Your task to perform on an android device: Turn off the flashlight Image 0: 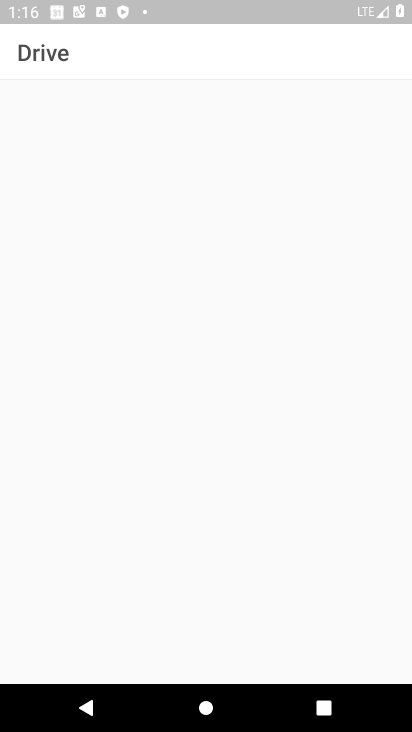
Step 0: press home button
Your task to perform on an android device: Turn off the flashlight Image 1: 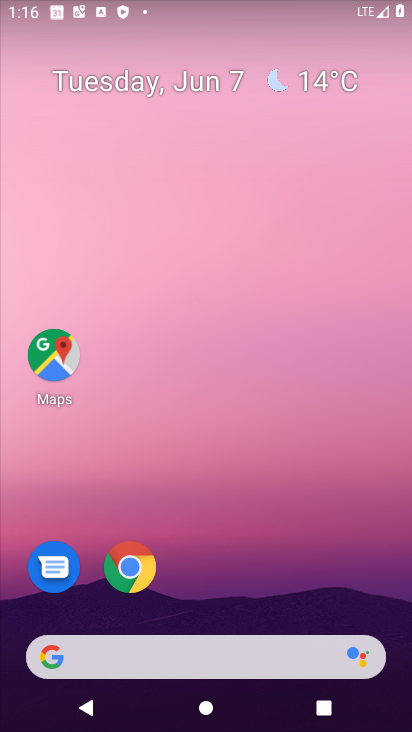
Step 1: task complete